Your task to perform on an android device: When is my next meeting? Image 0: 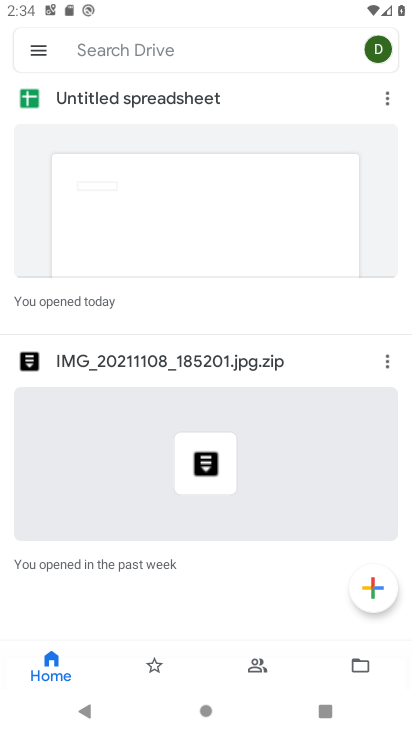
Step 0: press home button
Your task to perform on an android device: When is my next meeting? Image 1: 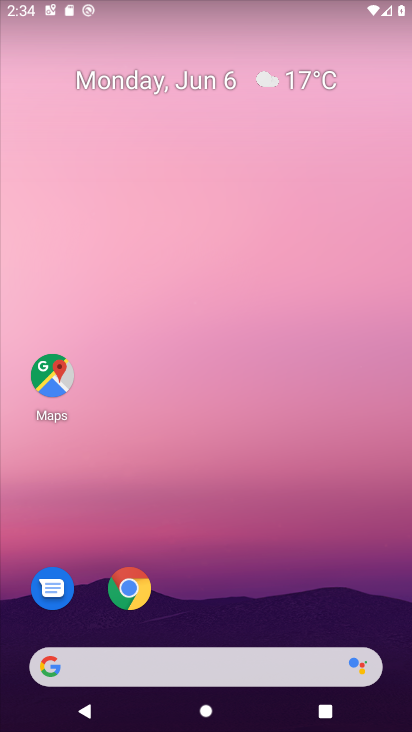
Step 1: drag from (269, 700) to (341, 3)
Your task to perform on an android device: When is my next meeting? Image 2: 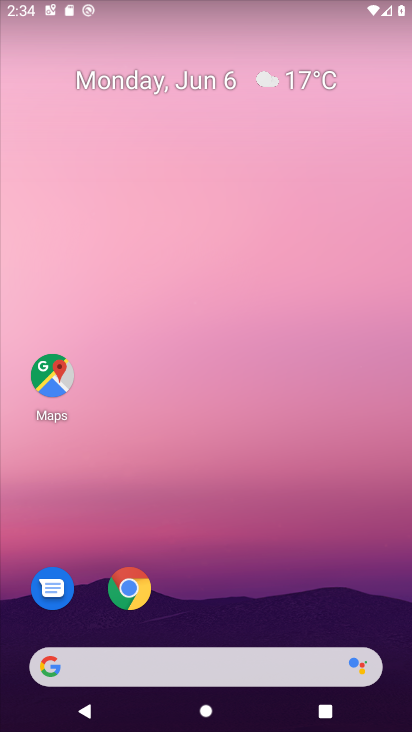
Step 2: drag from (228, 718) to (334, 44)
Your task to perform on an android device: When is my next meeting? Image 3: 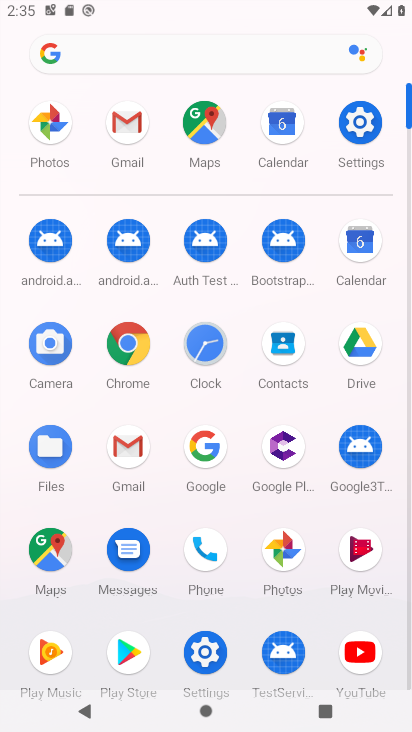
Step 3: click (359, 246)
Your task to perform on an android device: When is my next meeting? Image 4: 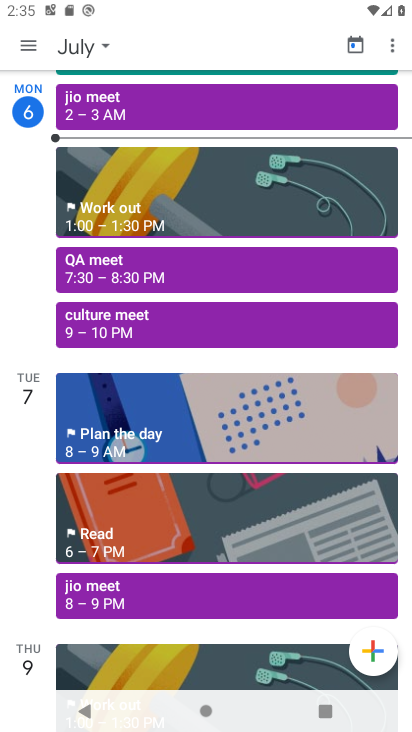
Step 4: task complete